Your task to perform on an android device: Open Google Maps Image 0: 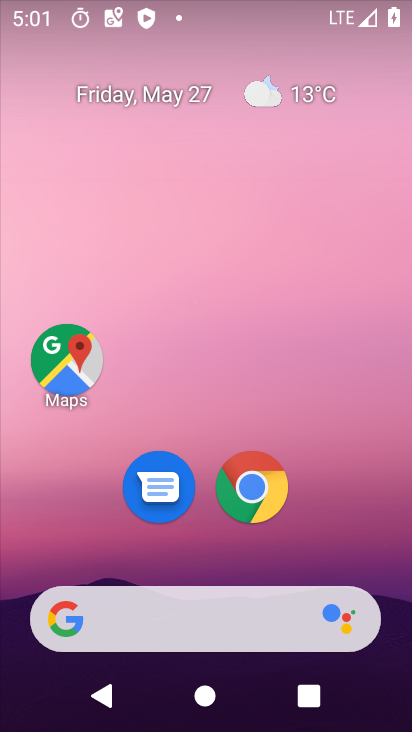
Step 0: drag from (329, 489) to (327, 70)
Your task to perform on an android device: Open Google Maps Image 1: 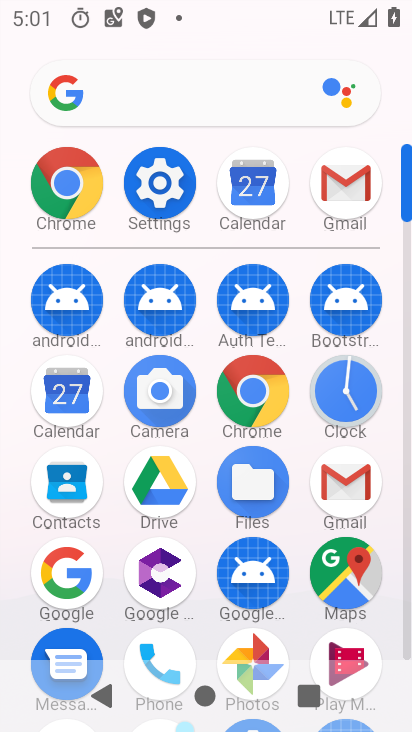
Step 1: click (342, 552)
Your task to perform on an android device: Open Google Maps Image 2: 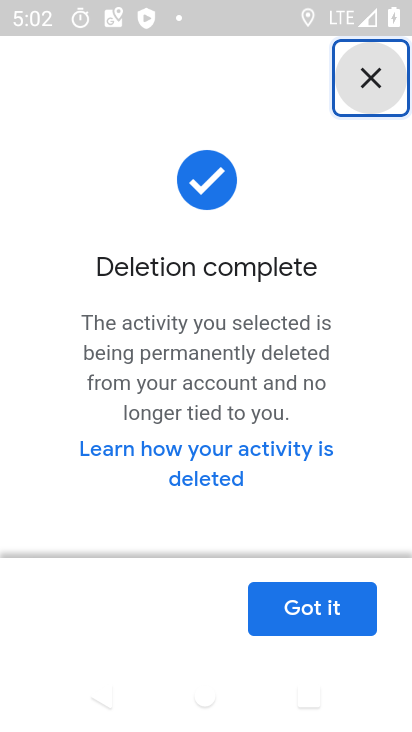
Step 2: press home button
Your task to perform on an android device: Open Google Maps Image 3: 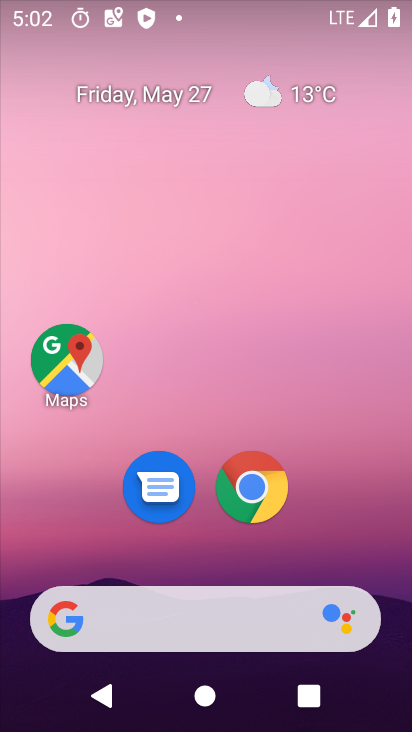
Step 3: drag from (379, 496) to (370, 60)
Your task to perform on an android device: Open Google Maps Image 4: 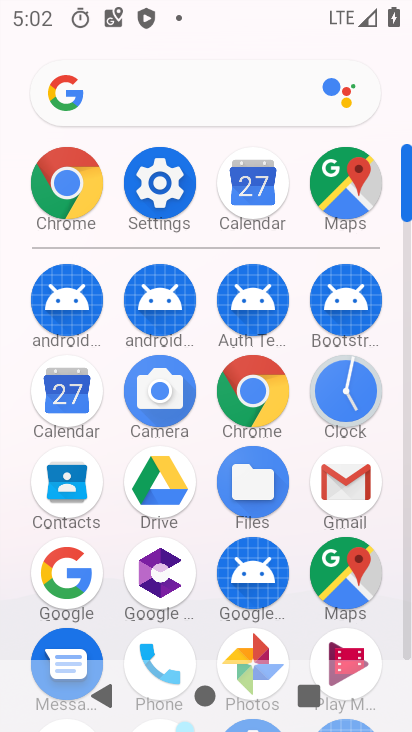
Step 4: click (346, 188)
Your task to perform on an android device: Open Google Maps Image 5: 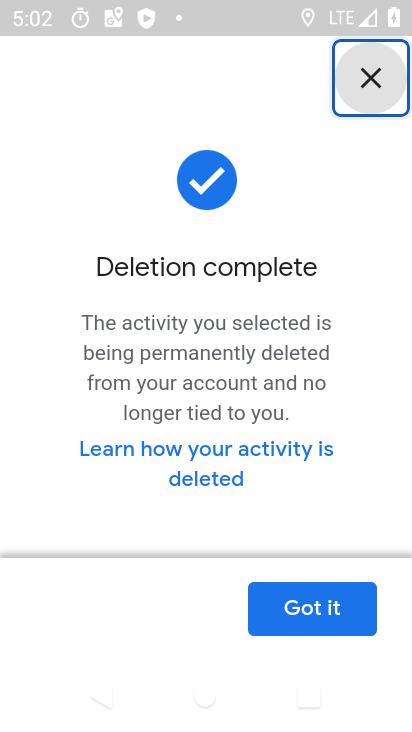
Step 5: task complete